Your task to perform on an android device: Open calendar and show me the fourth week of next month Image 0: 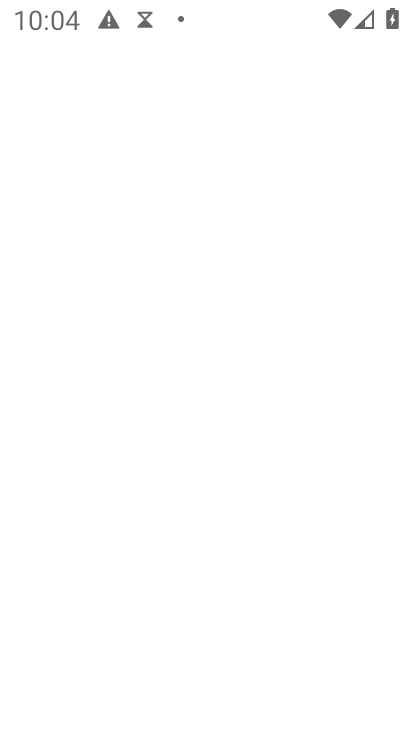
Step 0: press home button
Your task to perform on an android device: Open calendar and show me the fourth week of next month Image 1: 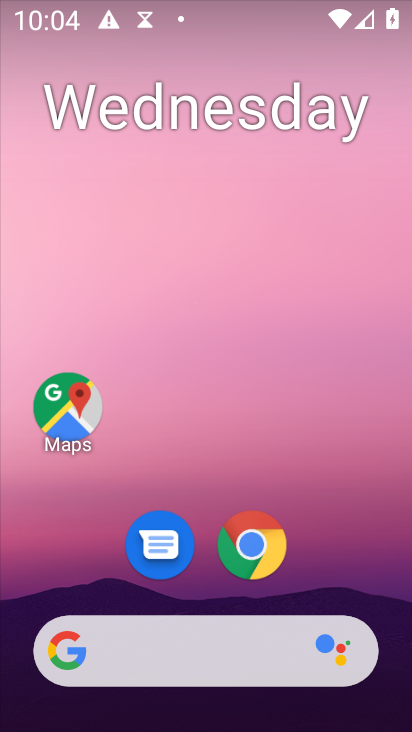
Step 1: drag from (332, 570) to (204, 15)
Your task to perform on an android device: Open calendar and show me the fourth week of next month Image 2: 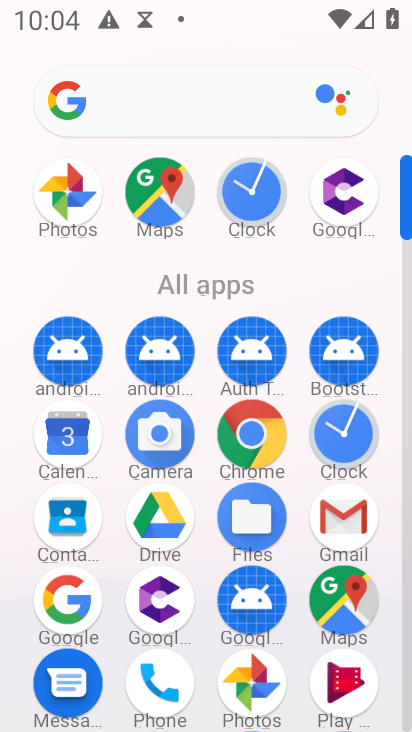
Step 2: click (63, 456)
Your task to perform on an android device: Open calendar and show me the fourth week of next month Image 3: 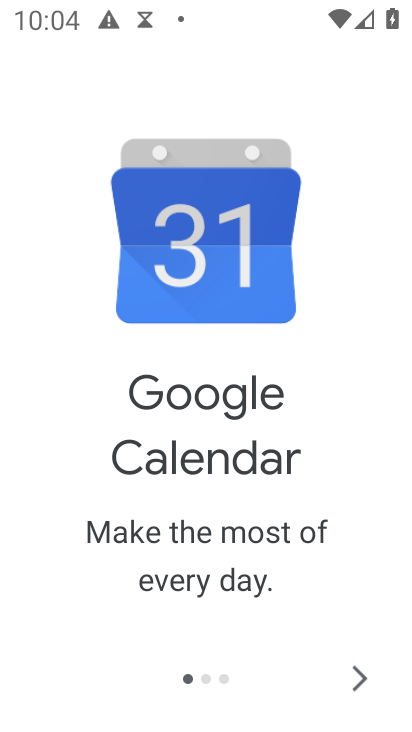
Step 3: click (365, 684)
Your task to perform on an android device: Open calendar and show me the fourth week of next month Image 4: 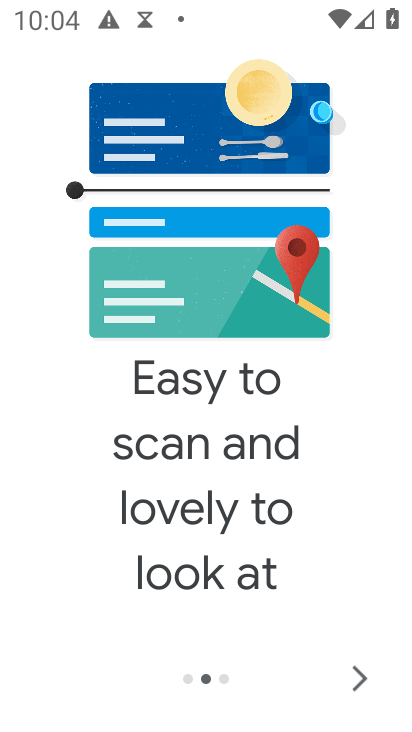
Step 4: click (365, 684)
Your task to perform on an android device: Open calendar and show me the fourth week of next month Image 5: 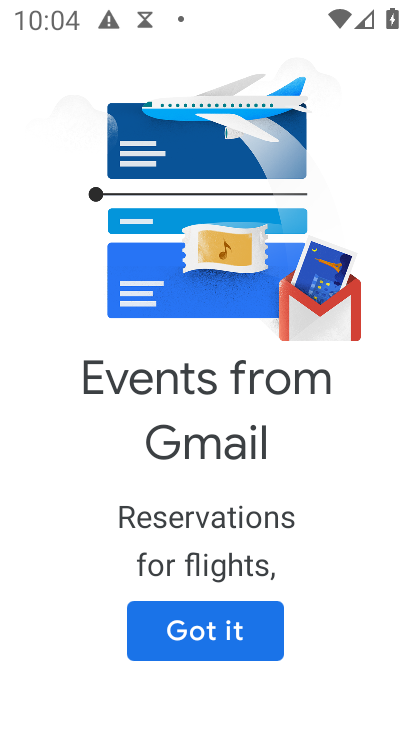
Step 5: click (219, 604)
Your task to perform on an android device: Open calendar and show me the fourth week of next month Image 6: 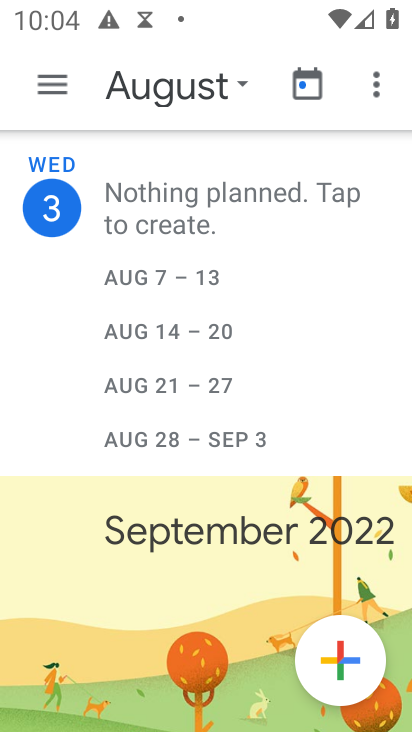
Step 6: click (226, 80)
Your task to perform on an android device: Open calendar and show me the fourth week of next month Image 7: 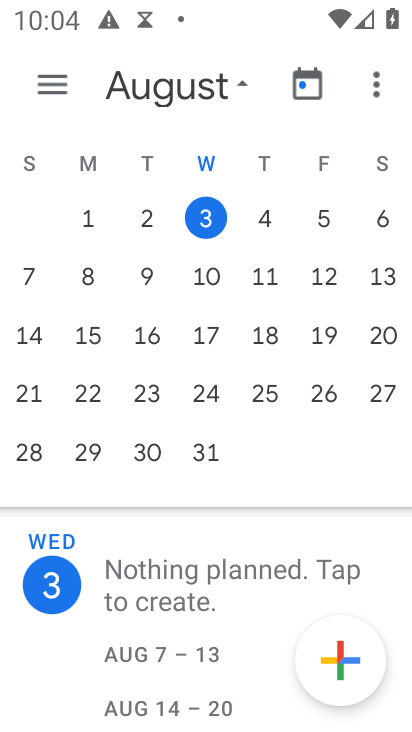
Step 7: drag from (396, 283) to (0, 166)
Your task to perform on an android device: Open calendar and show me the fourth week of next month Image 8: 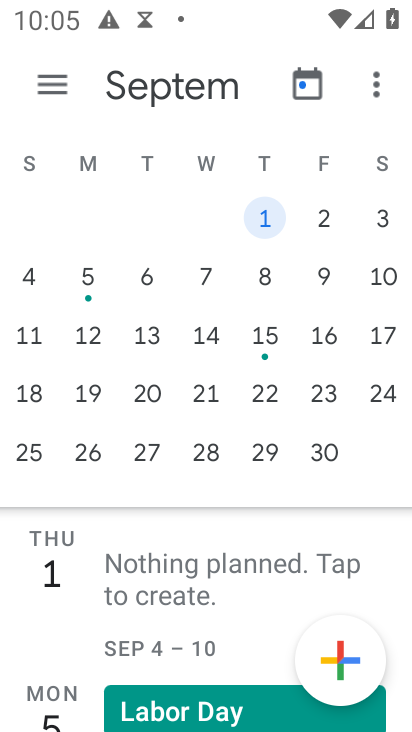
Step 8: click (33, 386)
Your task to perform on an android device: Open calendar and show me the fourth week of next month Image 9: 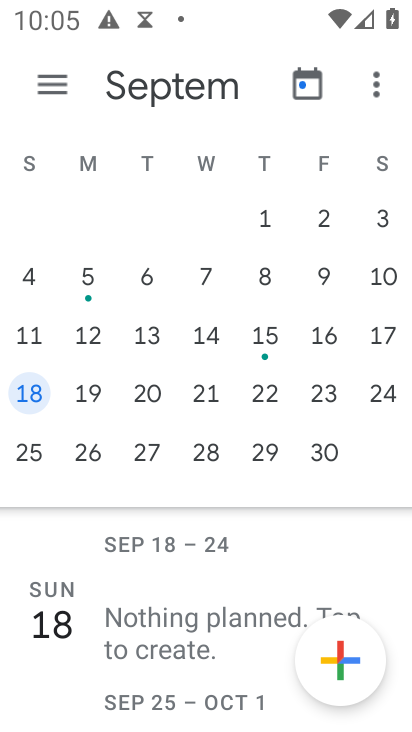
Step 9: task complete